Your task to perform on an android device: Go to display settings Image 0: 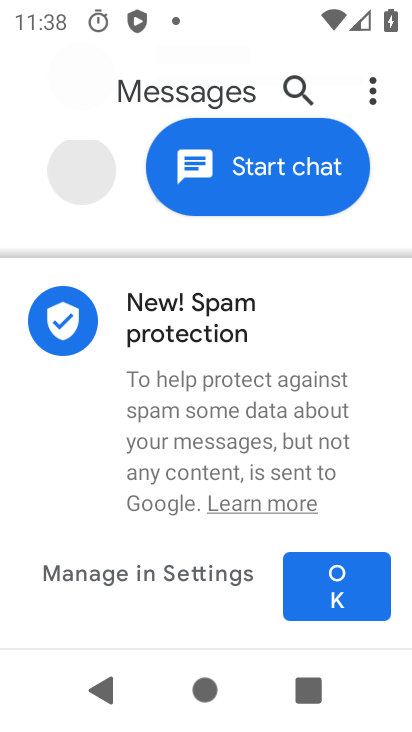
Step 0: press home button
Your task to perform on an android device: Go to display settings Image 1: 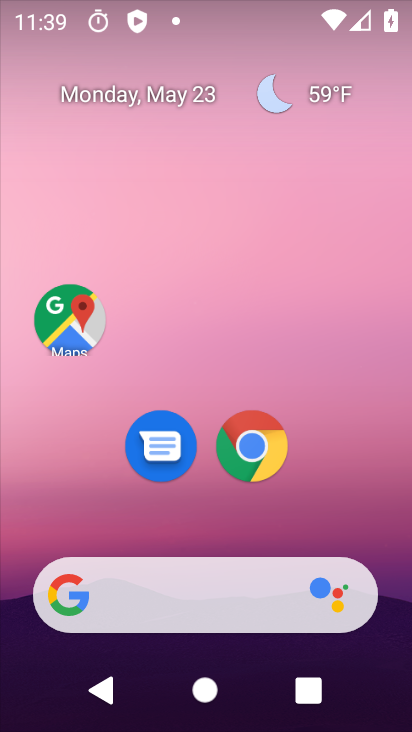
Step 1: drag from (145, 556) to (255, 31)
Your task to perform on an android device: Go to display settings Image 2: 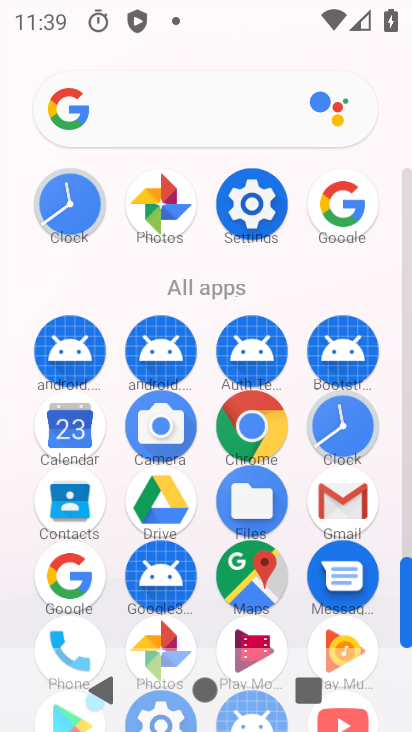
Step 2: click (254, 205)
Your task to perform on an android device: Go to display settings Image 3: 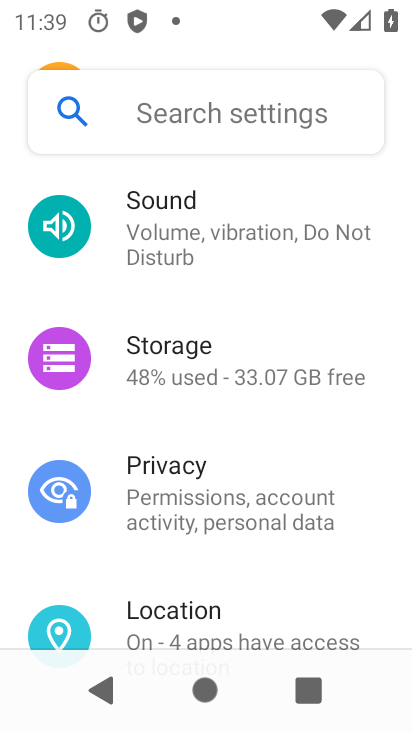
Step 3: drag from (179, 548) to (203, 288)
Your task to perform on an android device: Go to display settings Image 4: 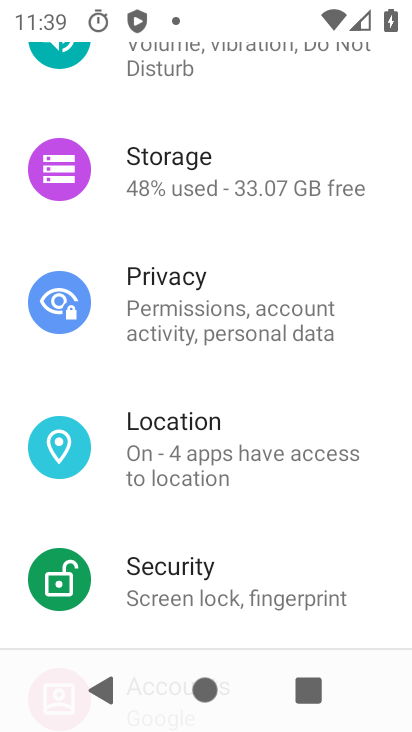
Step 4: drag from (159, 580) to (244, 152)
Your task to perform on an android device: Go to display settings Image 5: 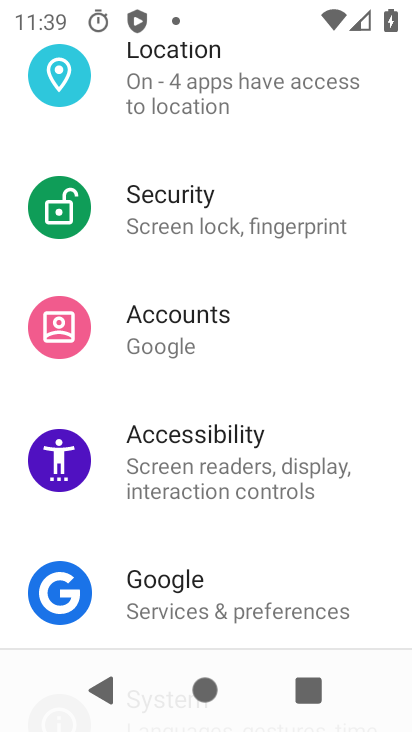
Step 5: drag from (254, 118) to (136, 644)
Your task to perform on an android device: Go to display settings Image 6: 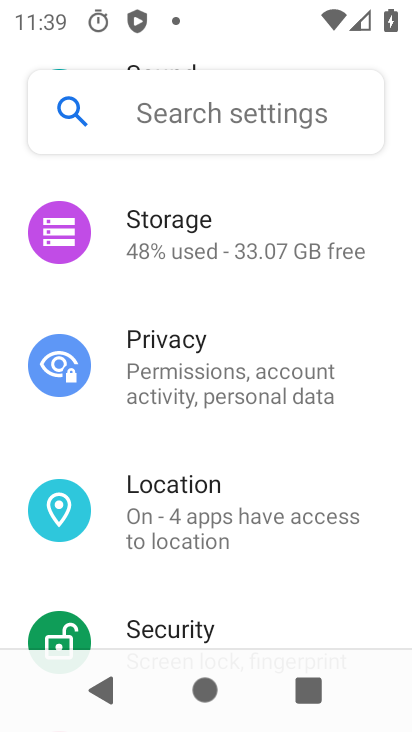
Step 6: drag from (274, 183) to (204, 437)
Your task to perform on an android device: Go to display settings Image 7: 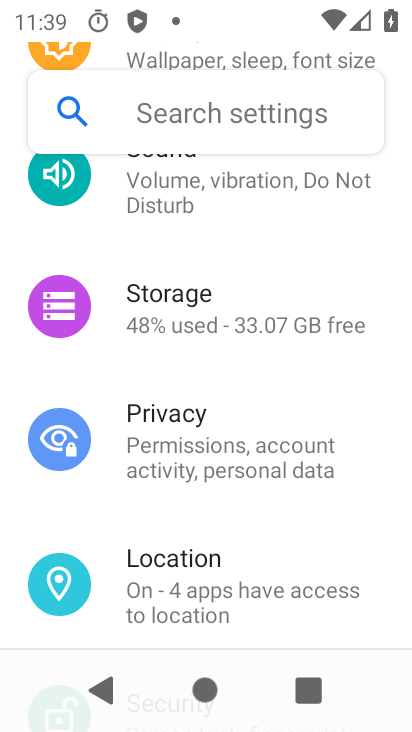
Step 7: drag from (259, 179) to (175, 506)
Your task to perform on an android device: Go to display settings Image 8: 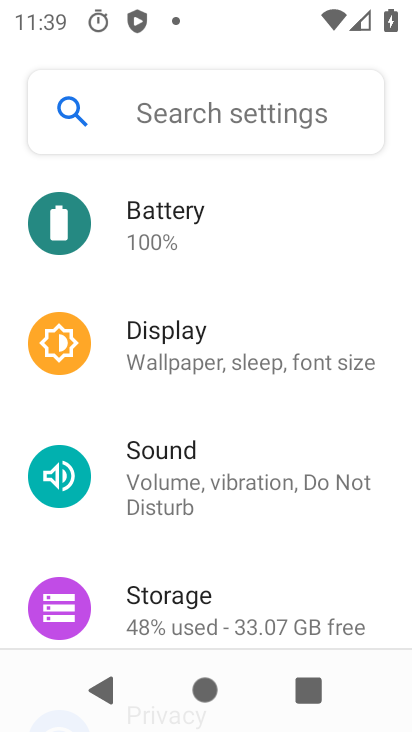
Step 8: click (204, 349)
Your task to perform on an android device: Go to display settings Image 9: 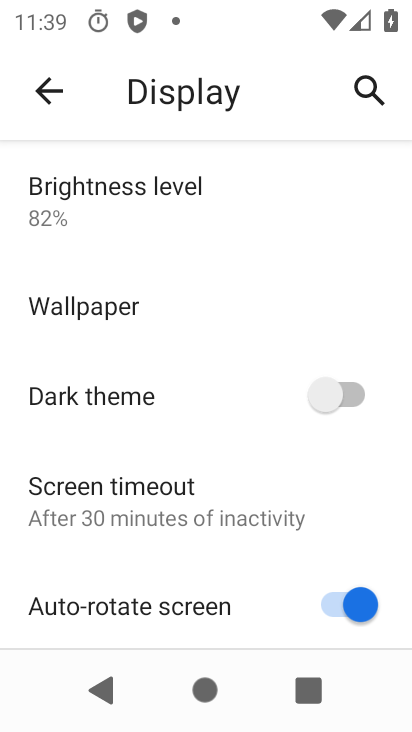
Step 9: task complete